Your task to perform on an android device: see tabs open on other devices in the chrome app Image 0: 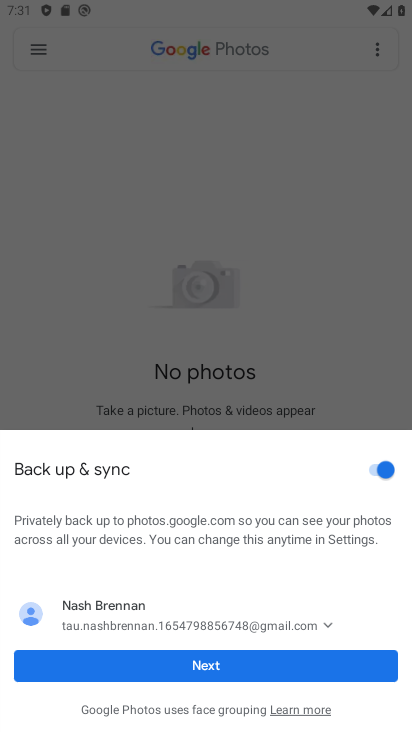
Step 0: press home button
Your task to perform on an android device: see tabs open on other devices in the chrome app Image 1: 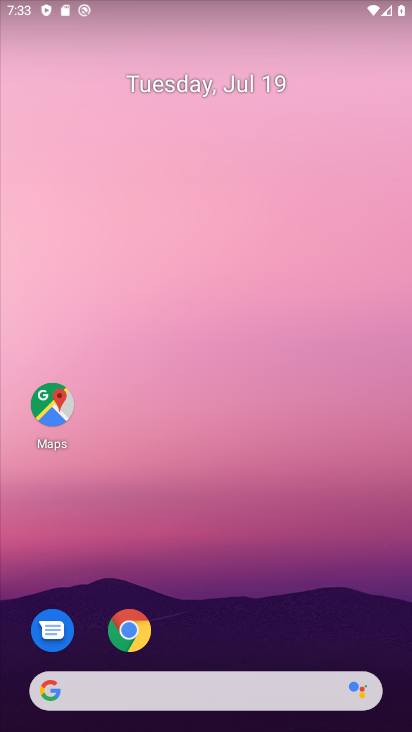
Step 1: click (138, 636)
Your task to perform on an android device: see tabs open on other devices in the chrome app Image 2: 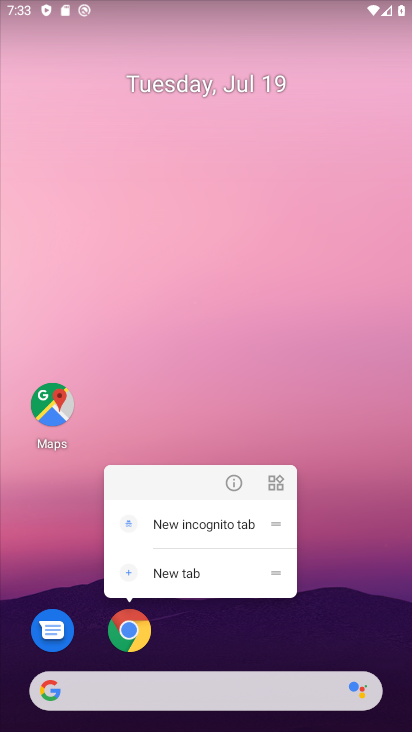
Step 2: click (129, 625)
Your task to perform on an android device: see tabs open on other devices in the chrome app Image 3: 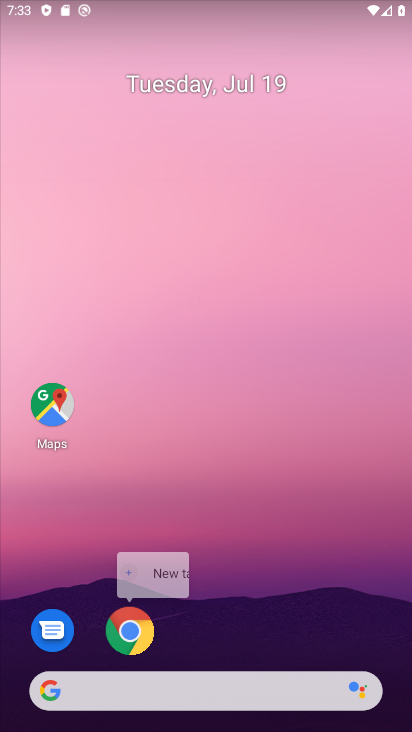
Step 3: click (129, 625)
Your task to perform on an android device: see tabs open on other devices in the chrome app Image 4: 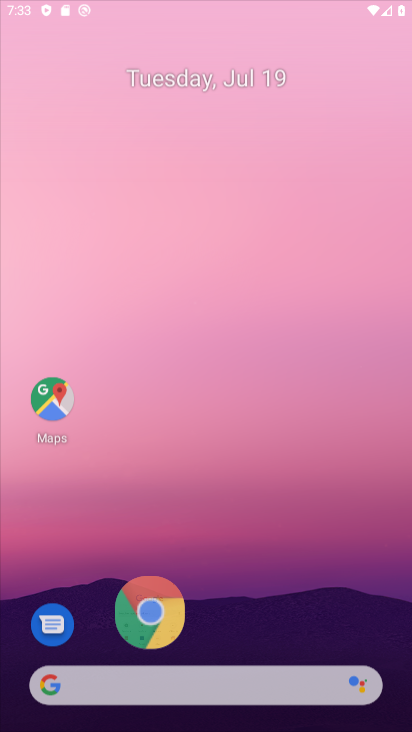
Step 4: click (129, 627)
Your task to perform on an android device: see tabs open on other devices in the chrome app Image 5: 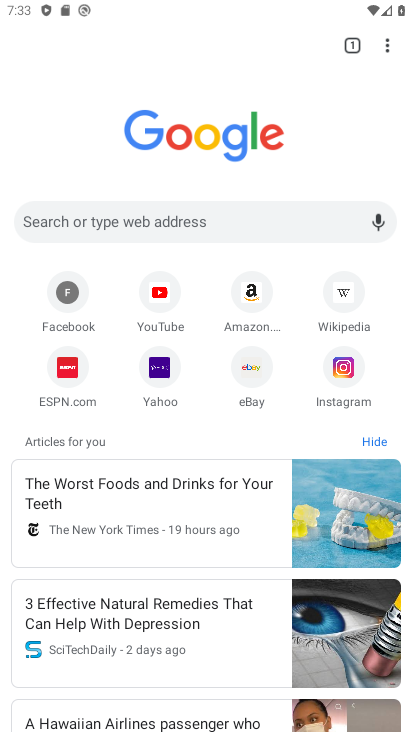
Step 5: task complete